Your task to perform on an android device: Go to Google maps Image 0: 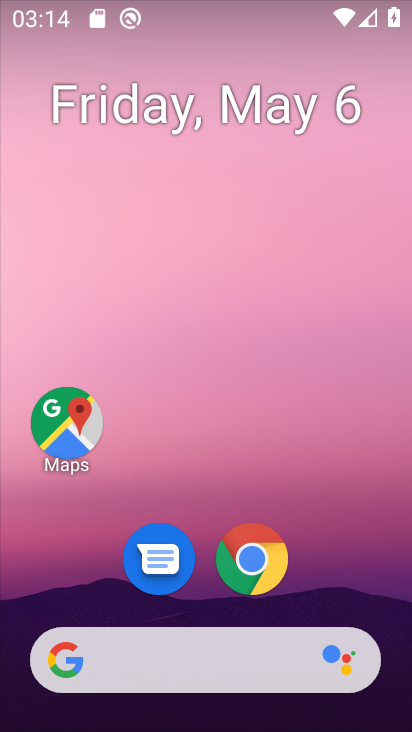
Step 0: drag from (274, 550) to (306, 59)
Your task to perform on an android device: Go to Google maps Image 1: 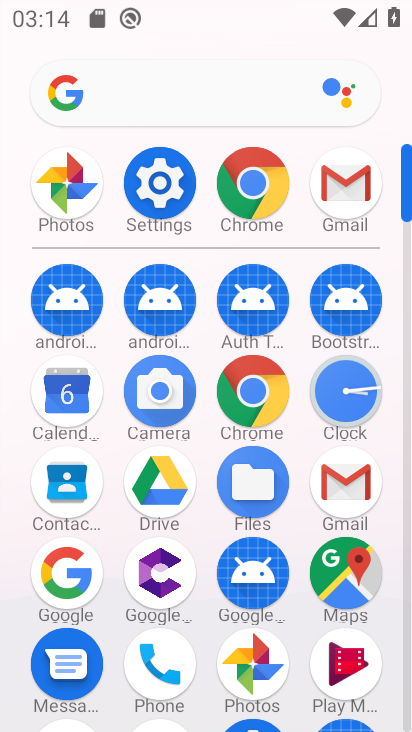
Step 1: click (334, 577)
Your task to perform on an android device: Go to Google maps Image 2: 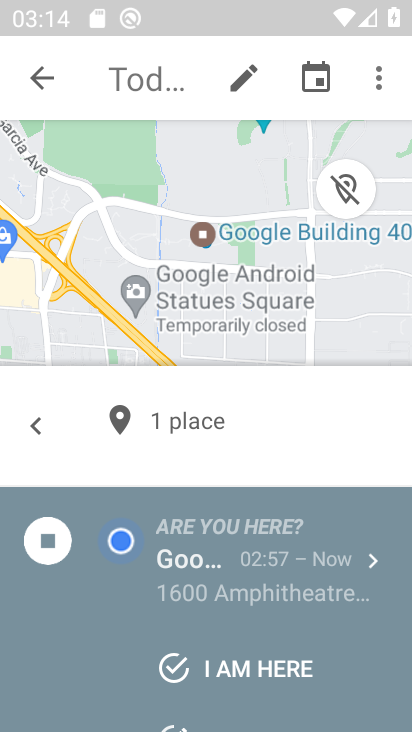
Step 2: task complete